Your task to perform on an android device: Search for dell xps on ebay, select the first entry, and add it to the cart. Image 0: 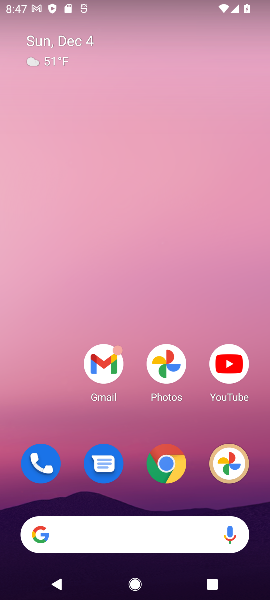
Step 0: click (124, 531)
Your task to perform on an android device: Search for dell xps on ebay, select the first entry, and add it to the cart. Image 1: 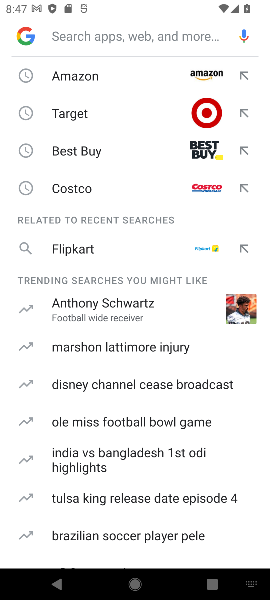
Step 1: type "dell xps"
Your task to perform on an android device: Search for dell xps on ebay, select the first entry, and add it to the cart. Image 2: 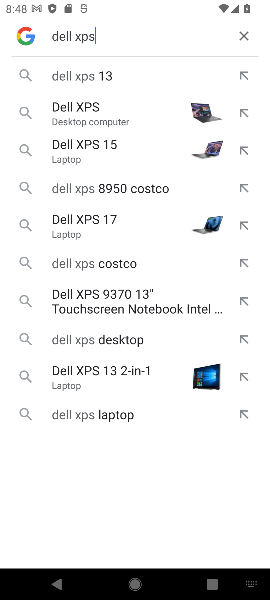
Step 2: click (69, 112)
Your task to perform on an android device: Search for dell xps on ebay, select the first entry, and add it to the cart. Image 3: 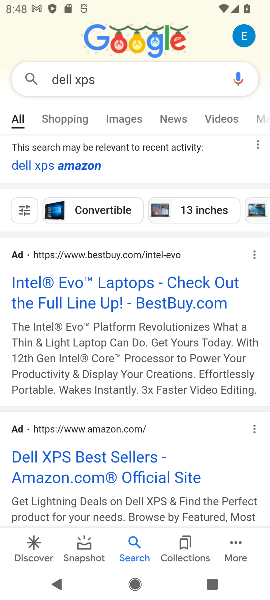
Step 3: click (71, 286)
Your task to perform on an android device: Search for dell xps on ebay, select the first entry, and add it to the cart. Image 4: 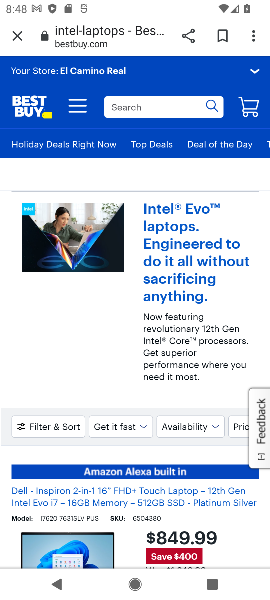
Step 4: task complete